Your task to perform on an android device: visit the assistant section in the google photos Image 0: 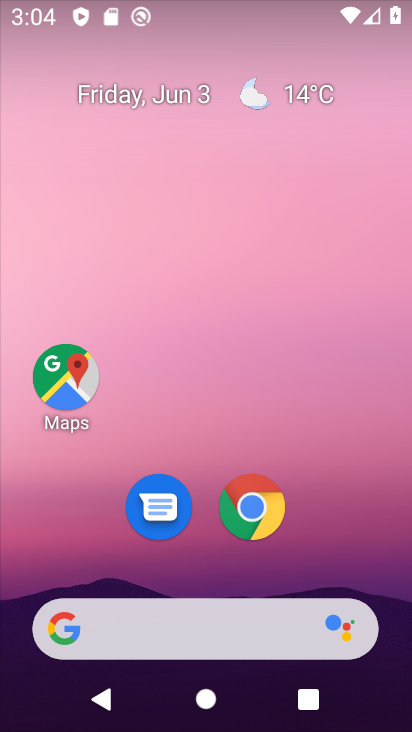
Step 0: drag from (217, 558) to (255, 215)
Your task to perform on an android device: visit the assistant section in the google photos Image 1: 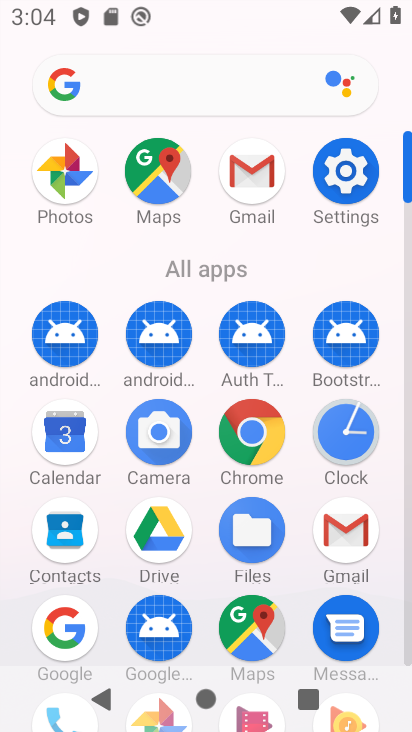
Step 1: drag from (197, 594) to (220, 289)
Your task to perform on an android device: visit the assistant section in the google photos Image 2: 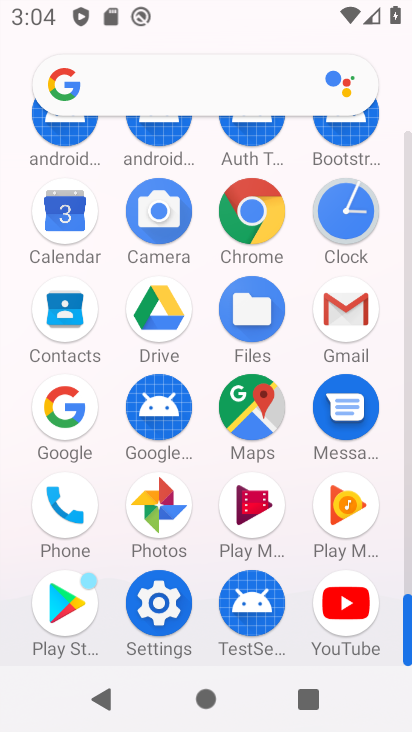
Step 2: click (164, 498)
Your task to perform on an android device: visit the assistant section in the google photos Image 3: 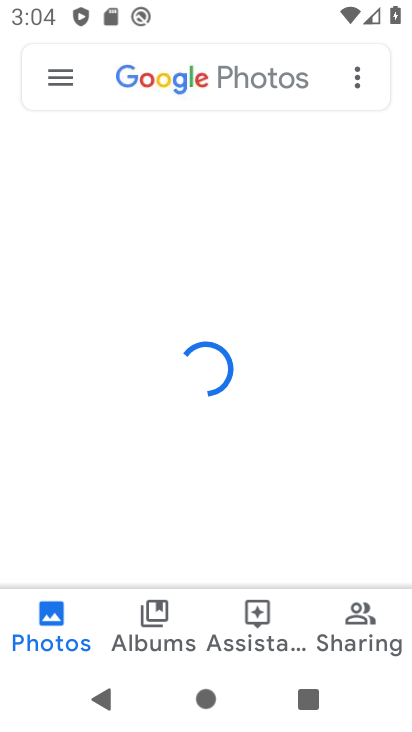
Step 3: click (258, 647)
Your task to perform on an android device: visit the assistant section in the google photos Image 4: 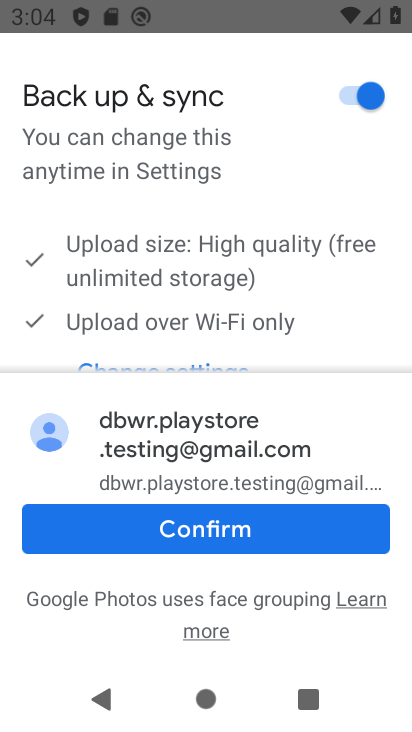
Step 4: task complete